Your task to perform on an android device: toggle translation in the chrome app Image 0: 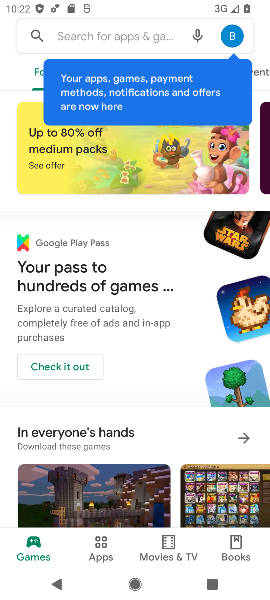
Step 0: press home button
Your task to perform on an android device: toggle translation in the chrome app Image 1: 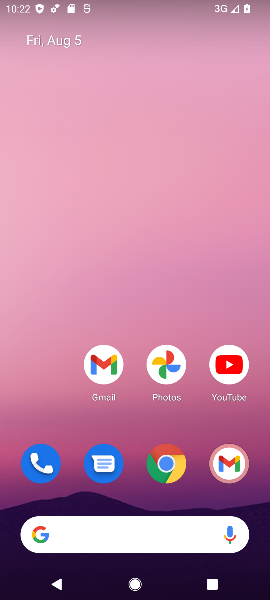
Step 1: drag from (144, 496) to (146, 128)
Your task to perform on an android device: toggle translation in the chrome app Image 2: 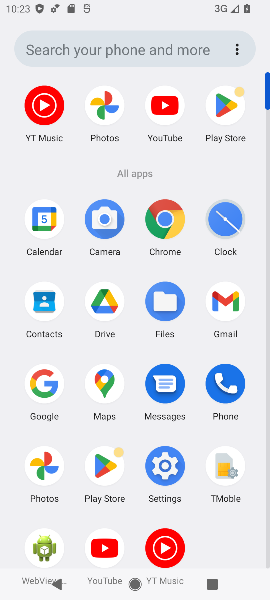
Step 2: click (164, 225)
Your task to perform on an android device: toggle translation in the chrome app Image 3: 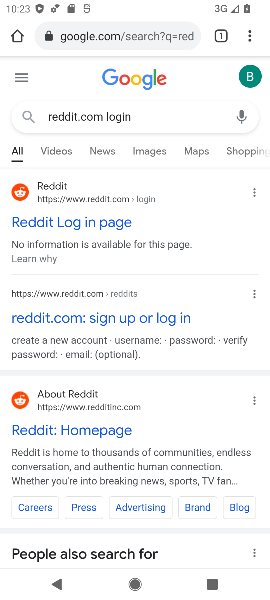
Step 3: click (257, 35)
Your task to perform on an android device: toggle translation in the chrome app Image 4: 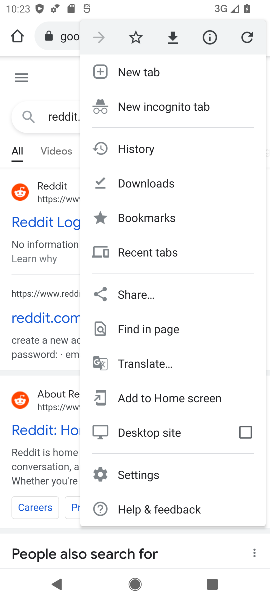
Step 4: click (153, 467)
Your task to perform on an android device: toggle translation in the chrome app Image 5: 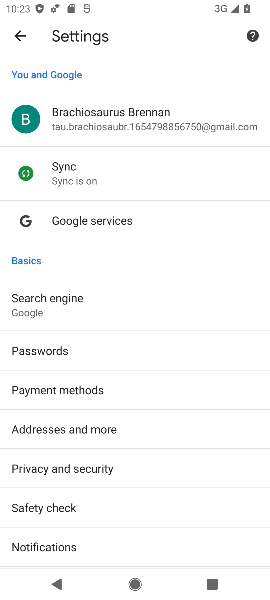
Step 5: drag from (100, 490) to (122, 110)
Your task to perform on an android device: toggle translation in the chrome app Image 6: 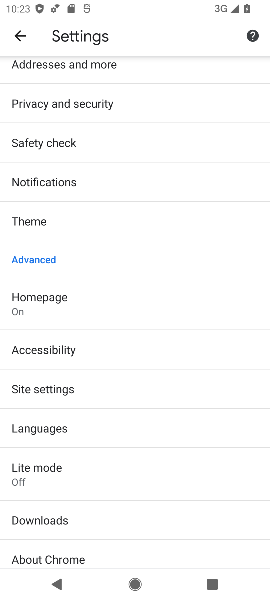
Step 6: click (86, 416)
Your task to perform on an android device: toggle translation in the chrome app Image 7: 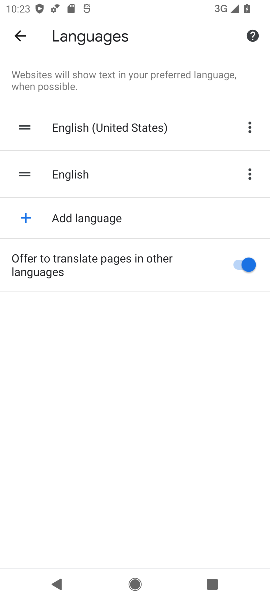
Step 7: click (234, 254)
Your task to perform on an android device: toggle translation in the chrome app Image 8: 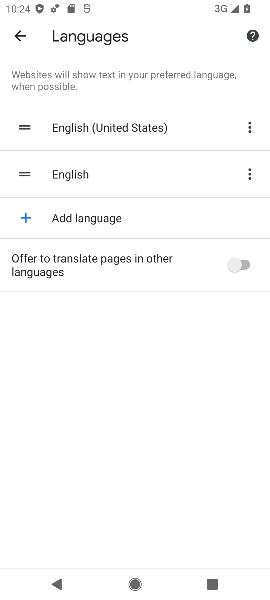
Step 8: task complete